Your task to perform on an android device: Open Google Maps and go to "Timeline" Image 0: 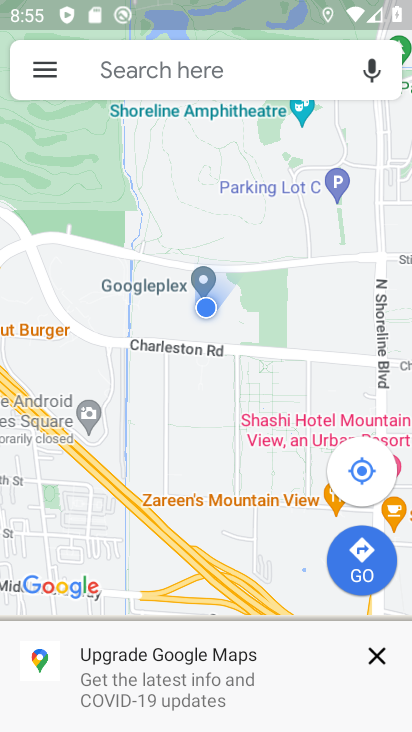
Step 0: click (51, 60)
Your task to perform on an android device: Open Google Maps and go to "Timeline" Image 1: 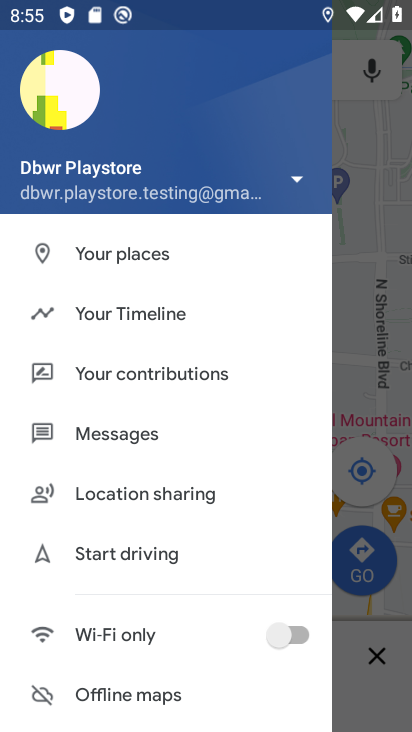
Step 1: click (173, 317)
Your task to perform on an android device: Open Google Maps and go to "Timeline" Image 2: 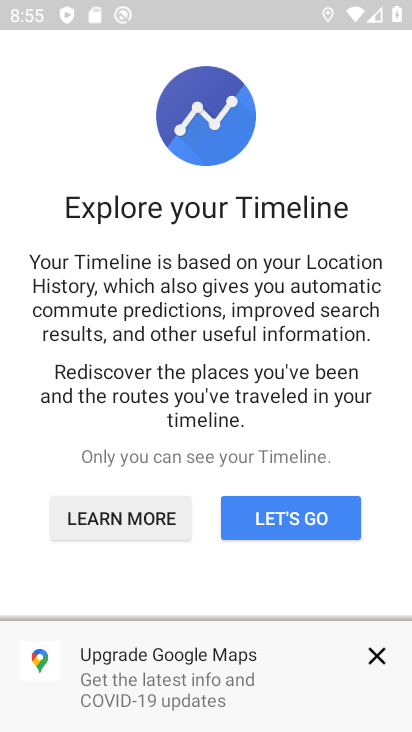
Step 2: click (279, 514)
Your task to perform on an android device: Open Google Maps and go to "Timeline" Image 3: 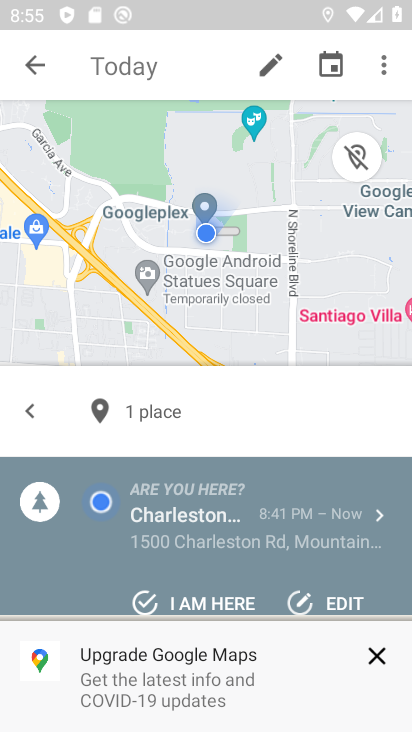
Step 3: task complete